Your task to perform on an android device: Do I have any events today? Image 0: 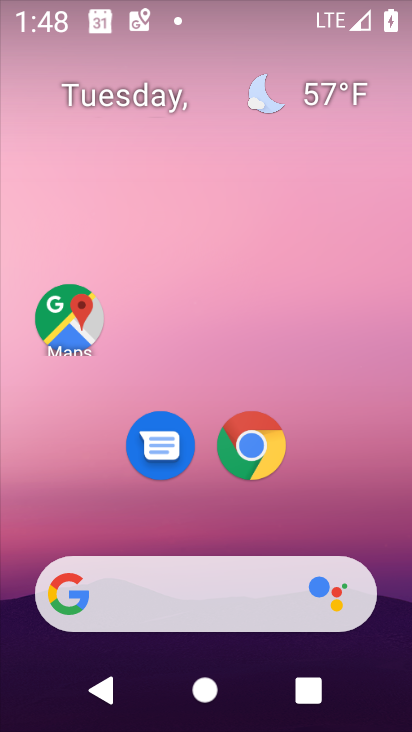
Step 0: drag from (355, 436) to (342, 118)
Your task to perform on an android device: Do I have any events today? Image 1: 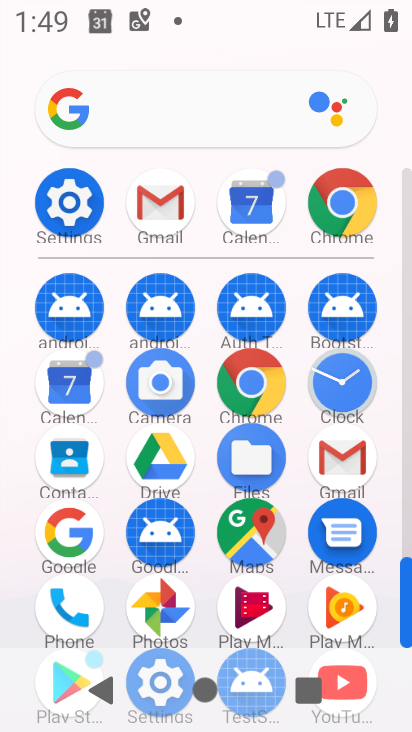
Step 1: click (75, 392)
Your task to perform on an android device: Do I have any events today? Image 2: 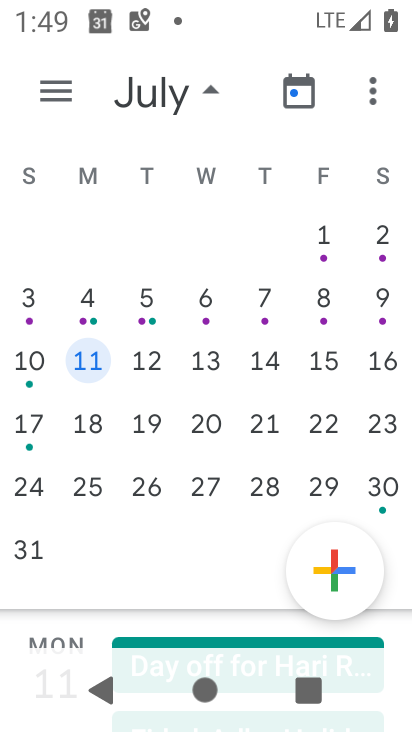
Step 2: drag from (48, 213) to (407, 207)
Your task to perform on an android device: Do I have any events today? Image 3: 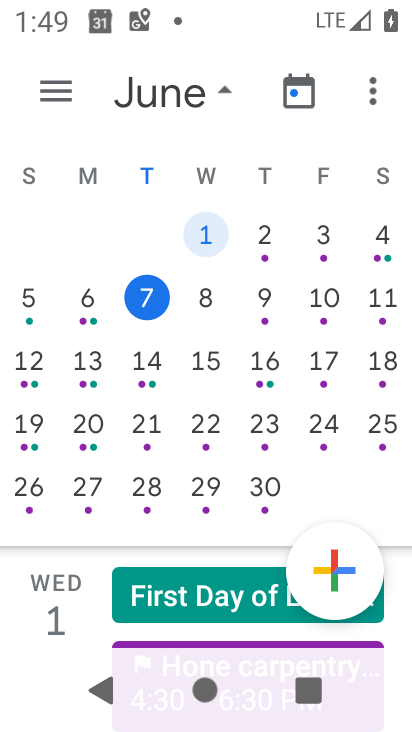
Step 3: click (144, 303)
Your task to perform on an android device: Do I have any events today? Image 4: 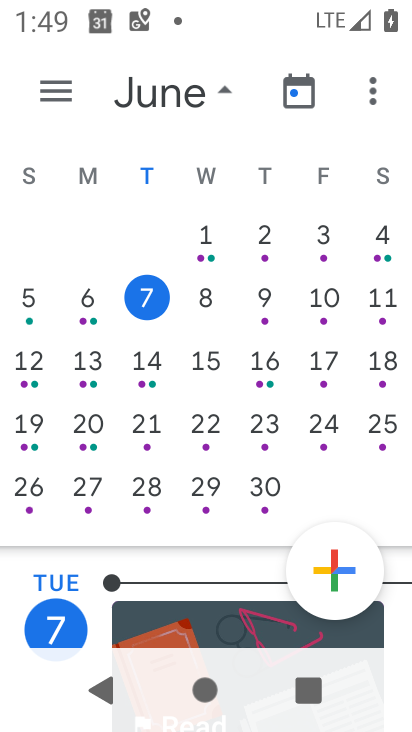
Step 4: drag from (199, 475) to (207, 265)
Your task to perform on an android device: Do I have any events today? Image 5: 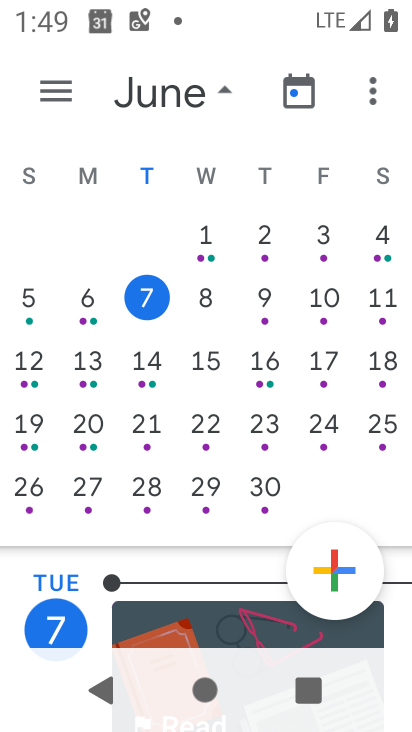
Step 5: drag from (245, 520) to (244, 283)
Your task to perform on an android device: Do I have any events today? Image 6: 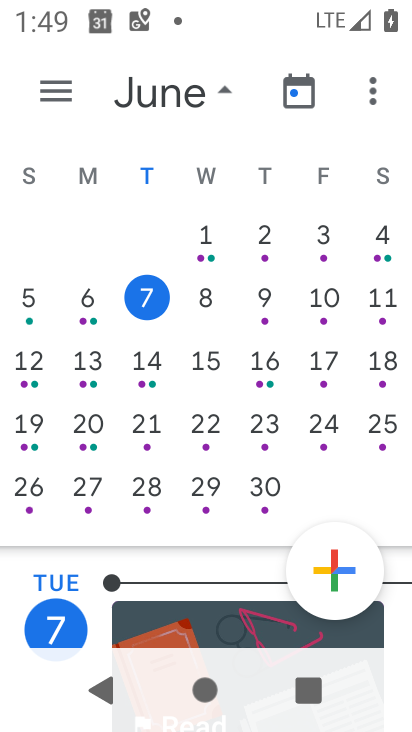
Step 6: drag from (224, 559) to (242, 296)
Your task to perform on an android device: Do I have any events today? Image 7: 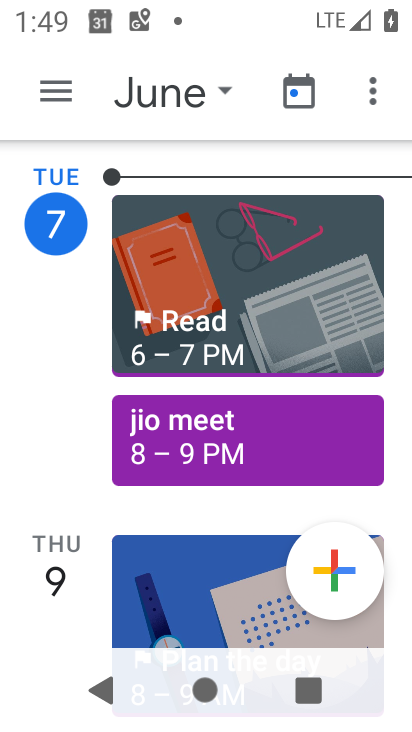
Step 7: click (239, 442)
Your task to perform on an android device: Do I have any events today? Image 8: 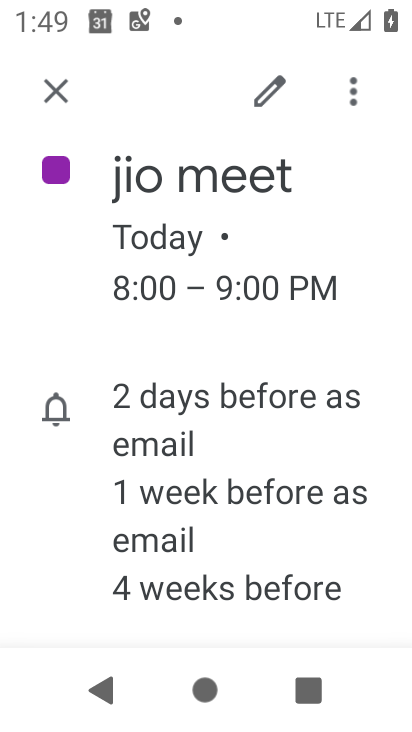
Step 8: task complete